Your task to perform on an android device: turn off airplane mode Image 0: 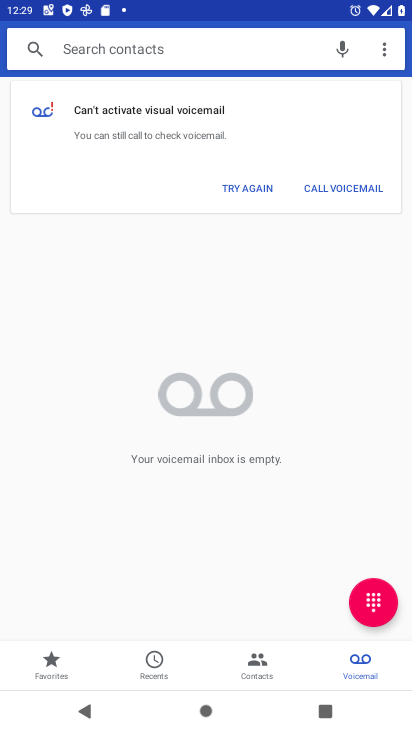
Step 0: press home button
Your task to perform on an android device: turn off airplane mode Image 1: 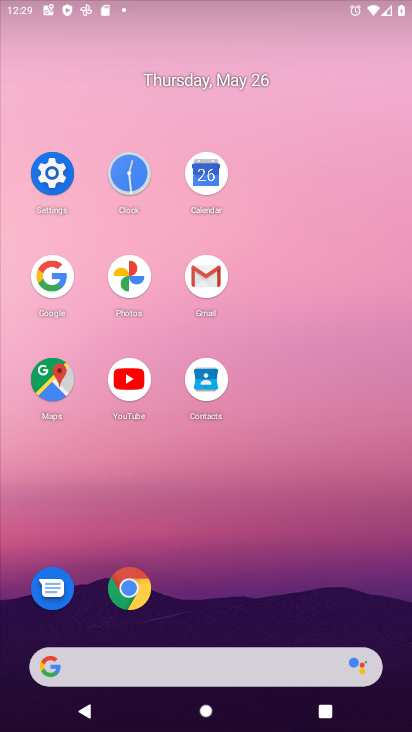
Step 1: click (66, 190)
Your task to perform on an android device: turn off airplane mode Image 2: 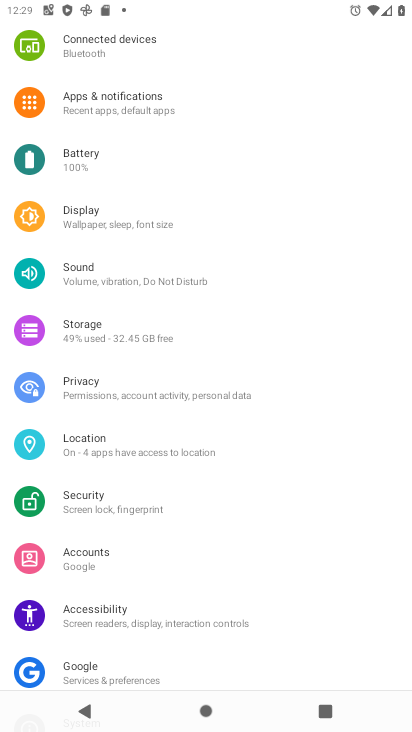
Step 2: drag from (345, 138) to (409, 583)
Your task to perform on an android device: turn off airplane mode Image 3: 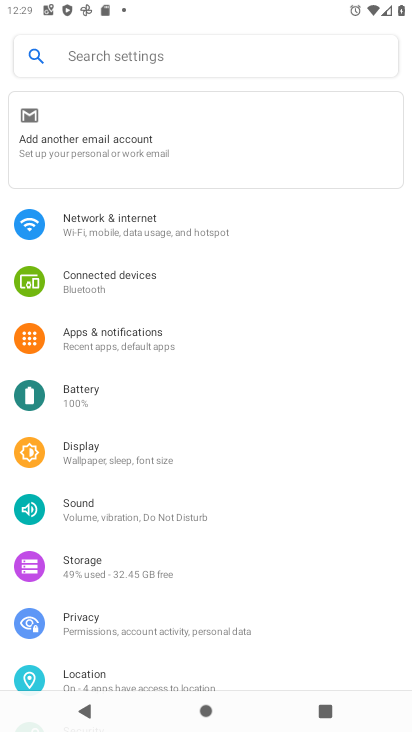
Step 3: click (156, 243)
Your task to perform on an android device: turn off airplane mode Image 4: 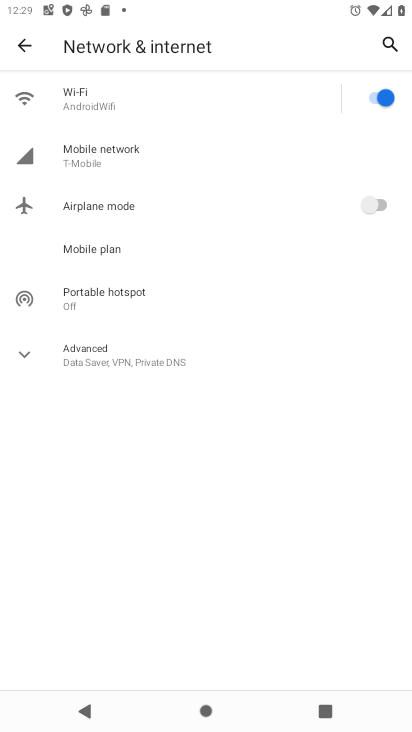
Step 4: task complete